Your task to perform on an android device: Open Google Chrome and open the bookmarks view Image 0: 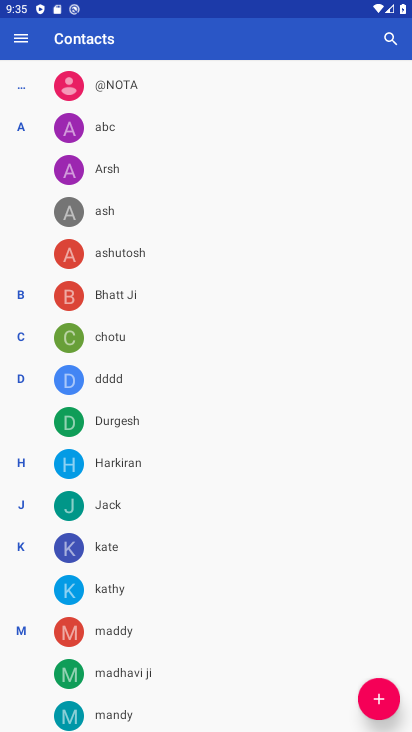
Step 0: press home button
Your task to perform on an android device: Open Google Chrome and open the bookmarks view Image 1: 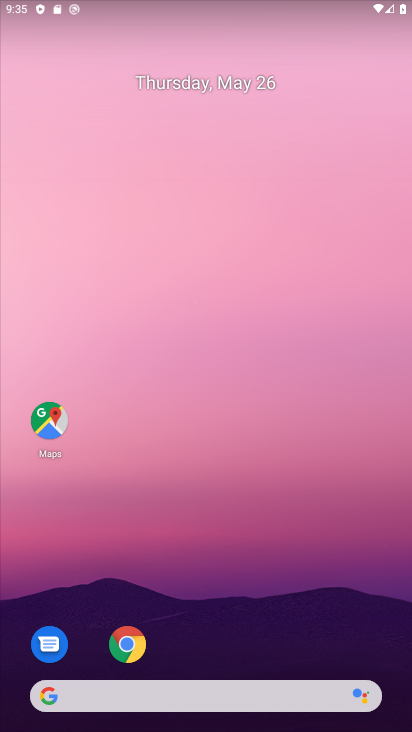
Step 1: click (143, 641)
Your task to perform on an android device: Open Google Chrome and open the bookmarks view Image 2: 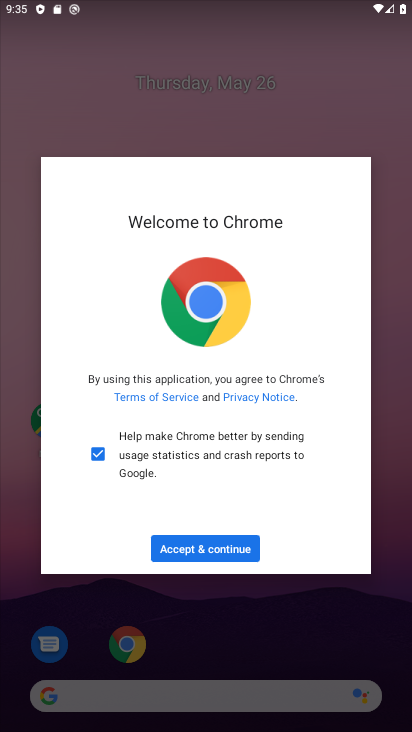
Step 2: click (241, 545)
Your task to perform on an android device: Open Google Chrome and open the bookmarks view Image 3: 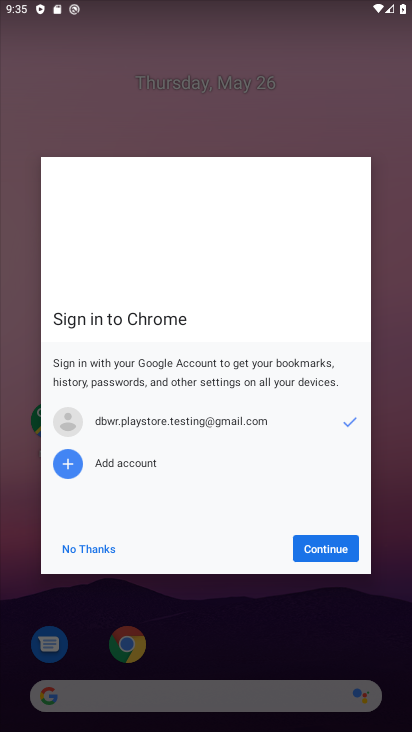
Step 3: click (310, 545)
Your task to perform on an android device: Open Google Chrome and open the bookmarks view Image 4: 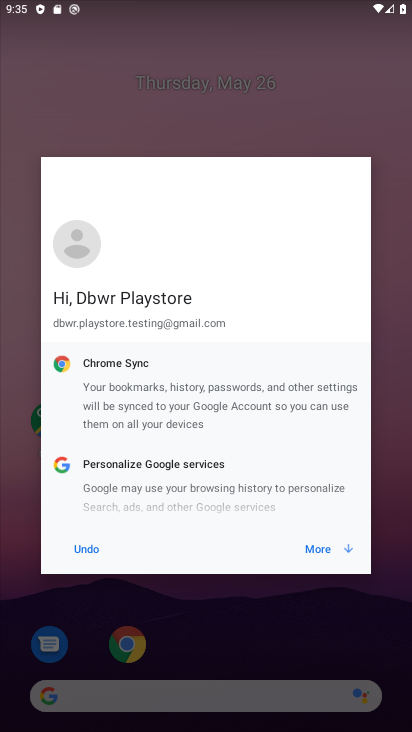
Step 4: click (310, 545)
Your task to perform on an android device: Open Google Chrome and open the bookmarks view Image 5: 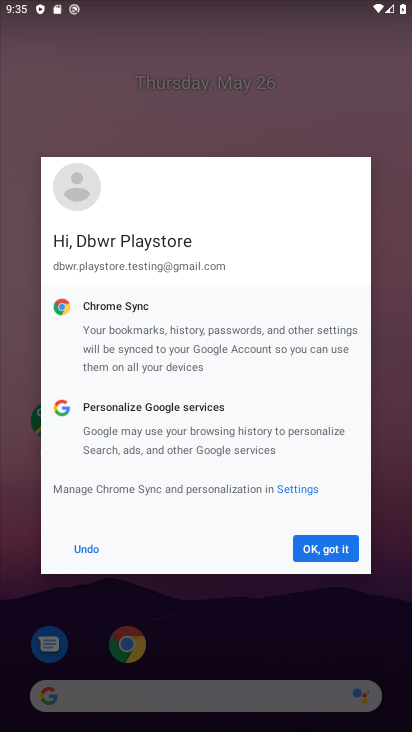
Step 5: click (310, 545)
Your task to perform on an android device: Open Google Chrome and open the bookmarks view Image 6: 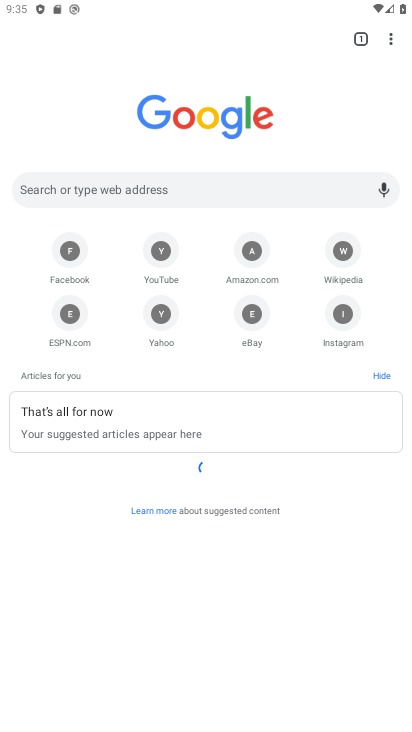
Step 6: task complete